Your task to perform on an android device: Do I have any events today? Image 0: 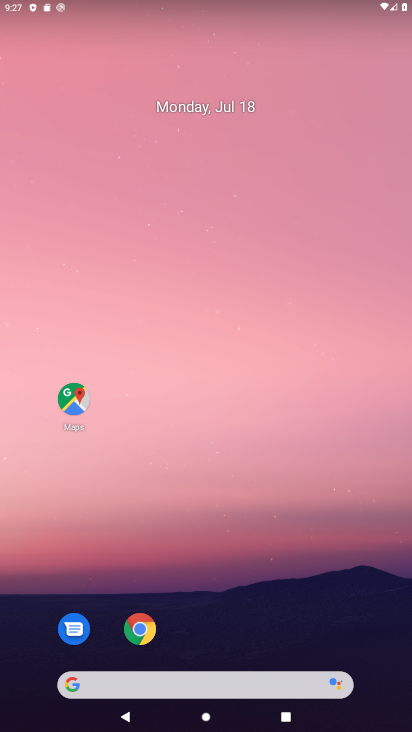
Step 0: drag from (220, 687) to (207, 210)
Your task to perform on an android device: Do I have any events today? Image 1: 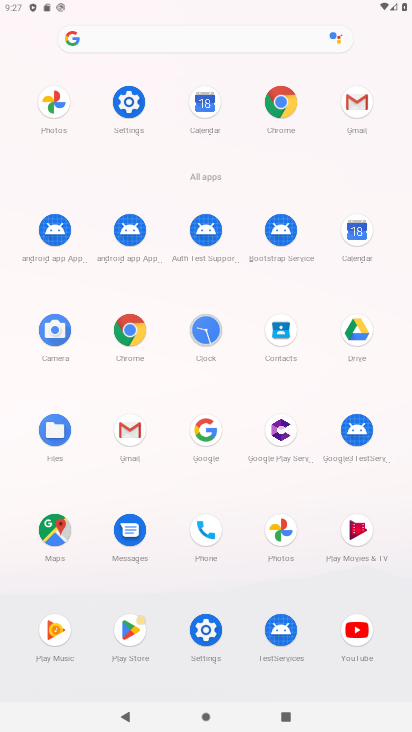
Step 1: click (357, 220)
Your task to perform on an android device: Do I have any events today? Image 2: 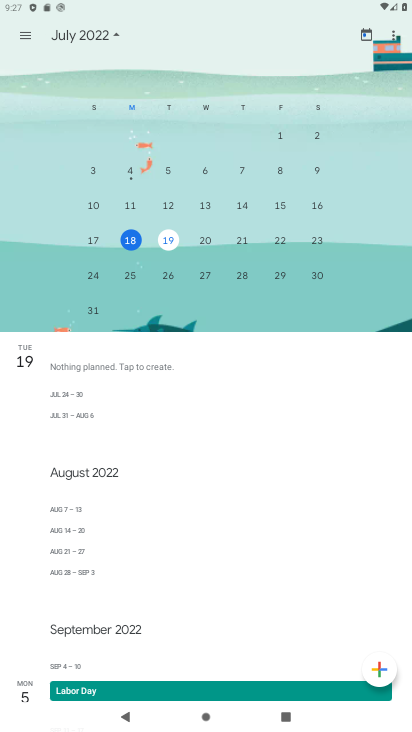
Step 2: click (131, 237)
Your task to perform on an android device: Do I have any events today? Image 3: 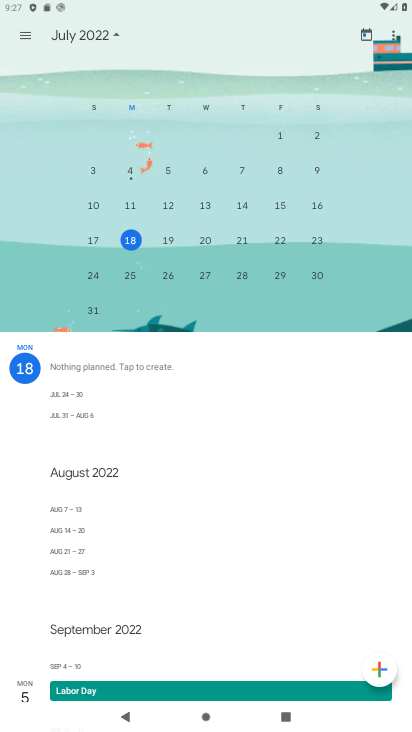
Step 3: task complete